Your task to perform on an android device: change the upload size in google photos Image 0: 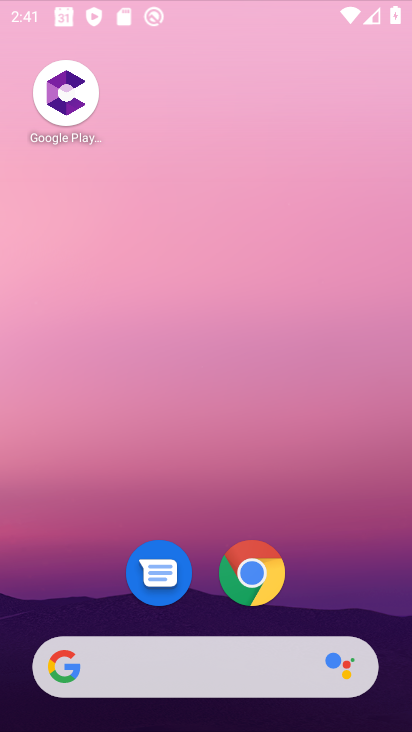
Step 0: drag from (258, 398) to (313, 258)
Your task to perform on an android device: change the upload size in google photos Image 1: 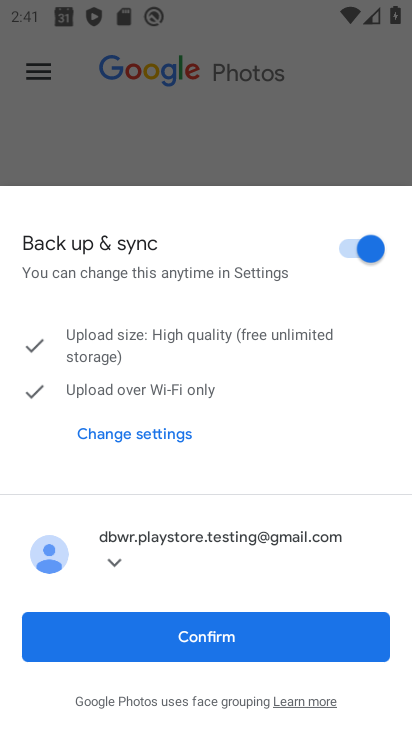
Step 1: press home button
Your task to perform on an android device: change the upload size in google photos Image 2: 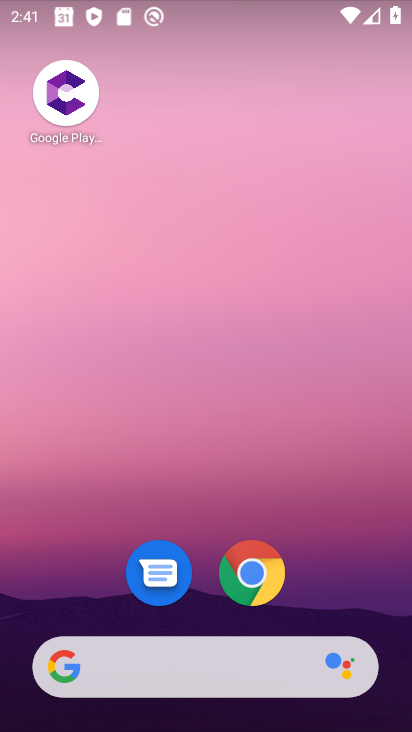
Step 2: drag from (240, 649) to (240, 293)
Your task to perform on an android device: change the upload size in google photos Image 3: 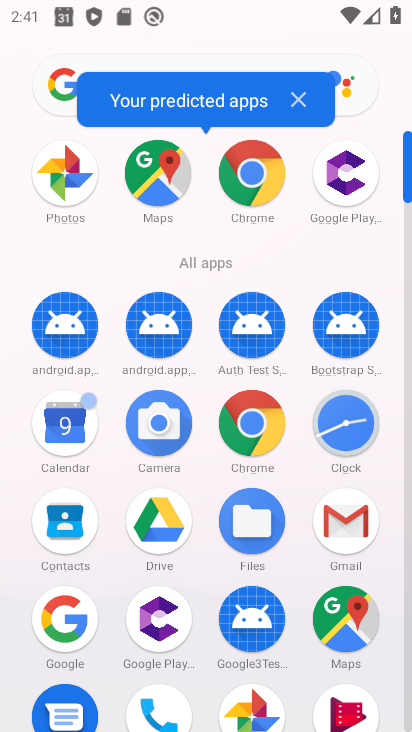
Step 3: drag from (196, 585) to (206, 291)
Your task to perform on an android device: change the upload size in google photos Image 4: 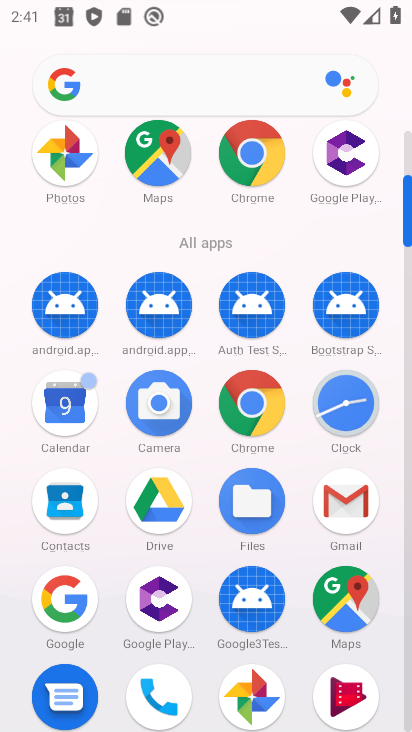
Step 4: click (231, 703)
Your task to perform on an android device: change the upload size in google photos Image 5: 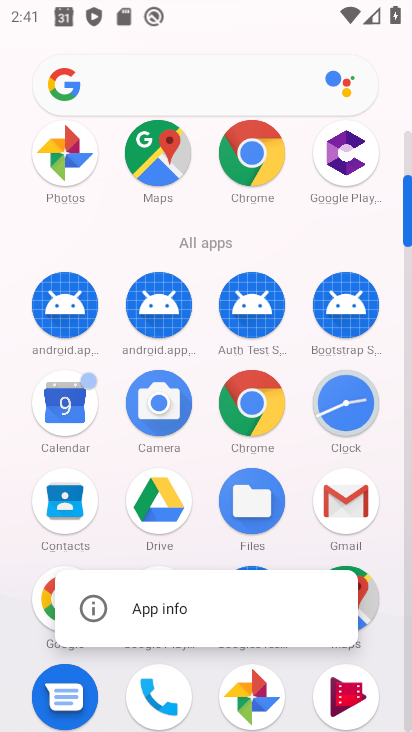
Step 5: click (241, 706)
Your task to perform on an android device: change the upload size in google photos Image 6: 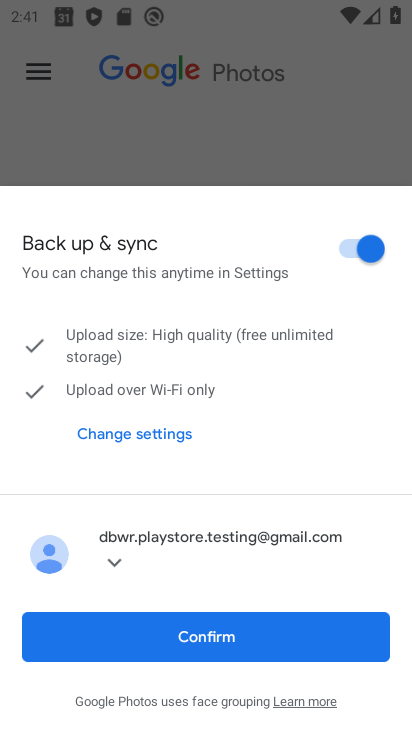
Step 6: click (216, 639)
Your task to perform on an android device: change the upload size in google photos Image 7: 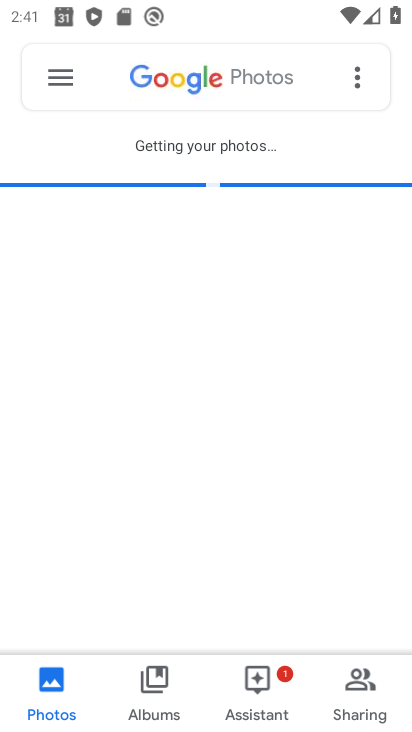
Step 7: click (57, 80)
Your task to perform on an android device: change the upload size in google photos Image 8: 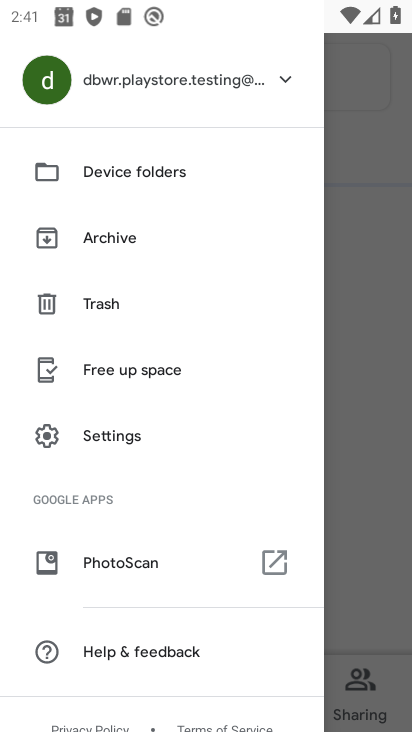
Step 8: click (117, 435)
Your task to perform on an android device: change the upload size in google photos Image 9: 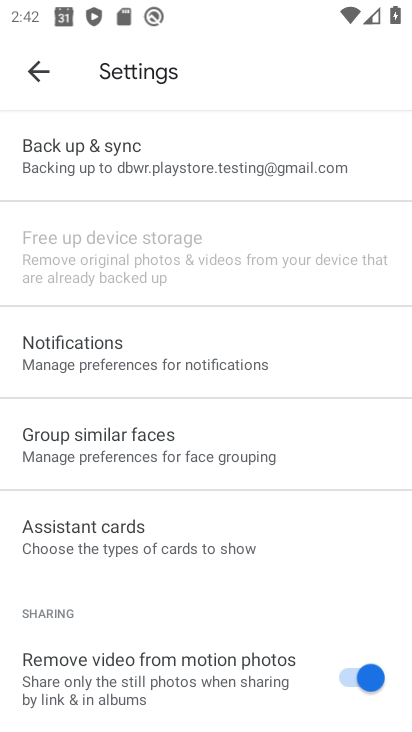
Step 9: click (127, 159)
Your task to perform on an android device: change the upload size in google photos Image 10: 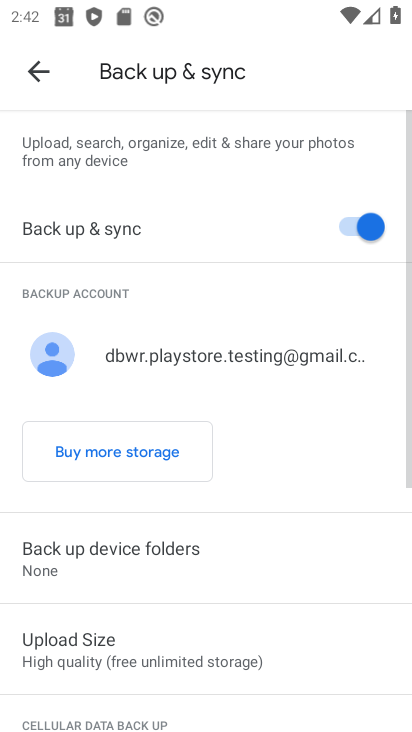
Step 10: drag from (176, 698) to (196, 382)
Your task to perform on an android device: change the upload size in google photos Image 11: 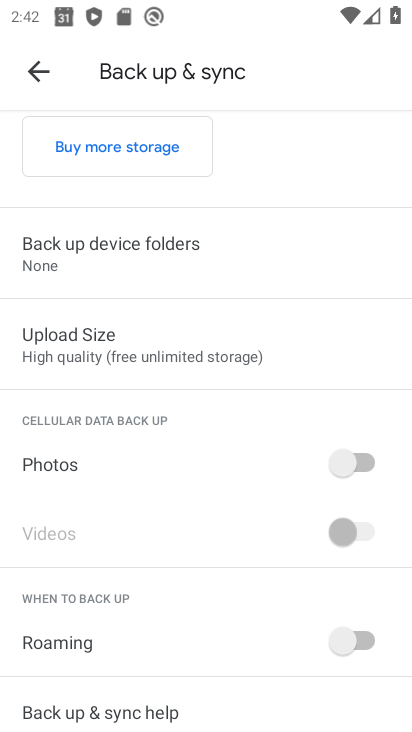
Step 11: click (130, 355)
Your task to perform on an android device: change the upload size in google photos Image 12: 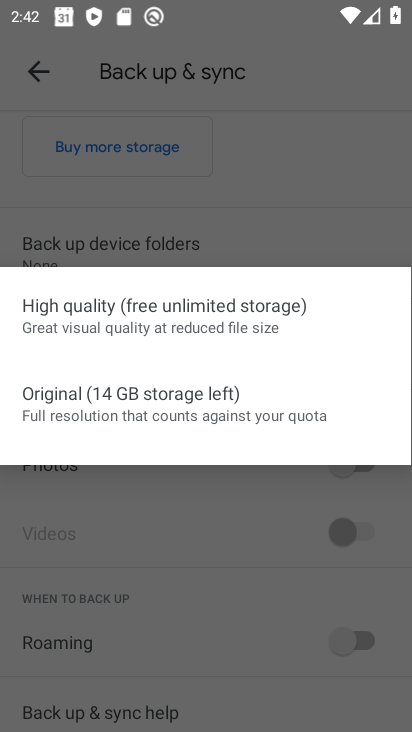
Step 12: click (146, 410)
Your task to perform on an android device: change the upload size in google photos Image 13: 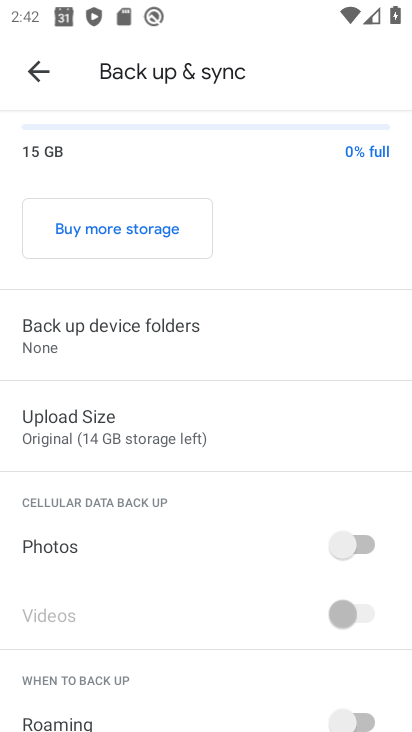
Step 13: task complete